Your task to perform on an android device: turn off airplane mode Image 0: 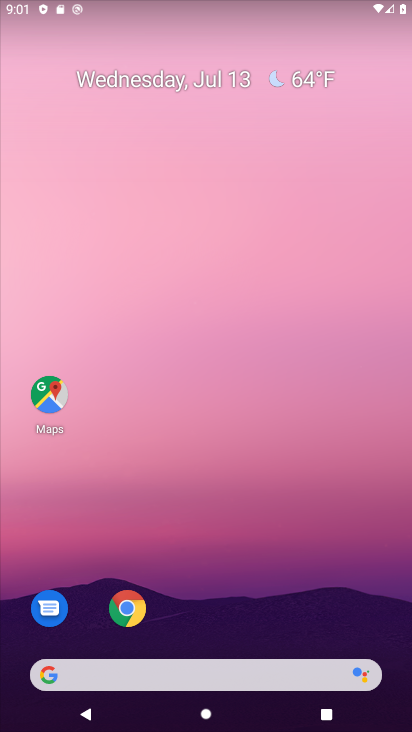
Step 0: drag from (218, 553) to (162, 128)
Your task to perform on an android device: turn off airplane mode Image 1: 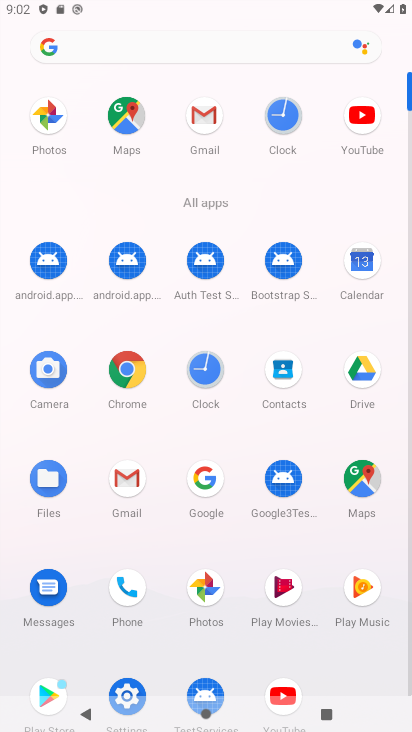
Step 1: click (129, 688)
Your task to perform on an android device: turn off airplane mode Image 2: 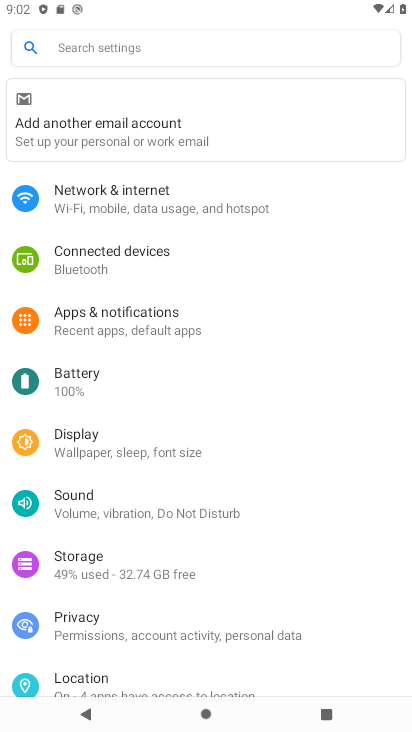
Step 2: click (123, 199)
Your task to perform on an android device: turn off airplane mode Image 3: 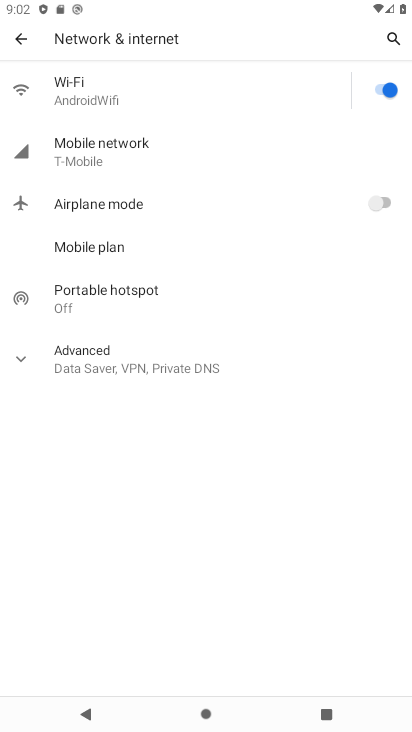
Step 3: task complete